Your task to perform on an android device: toggle show notifications on the lock screen Image 0: 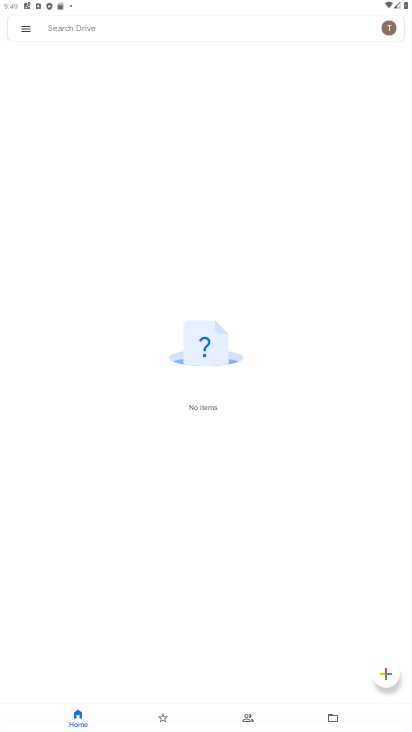
Step 0: press home button
Your task to perform on an android device: toggle show notifications on the lock screen Image 1: 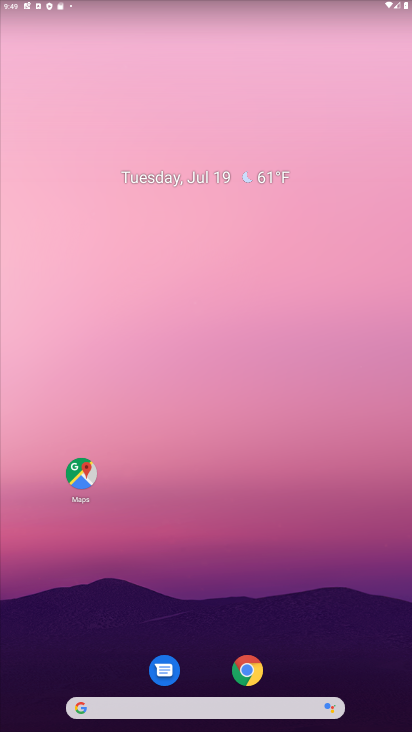
Step 1: drag from (199, 655) to (232, 71)
Your task to perform on an android device: toggle show notifications on the lock screen Image 2: 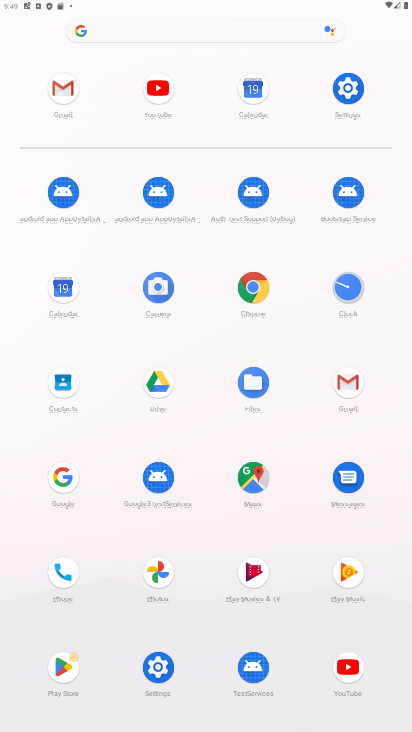
Step 2: click (341, 91)
Your task to perform on an android device: toggle show notifications on the lock screen Image 3: 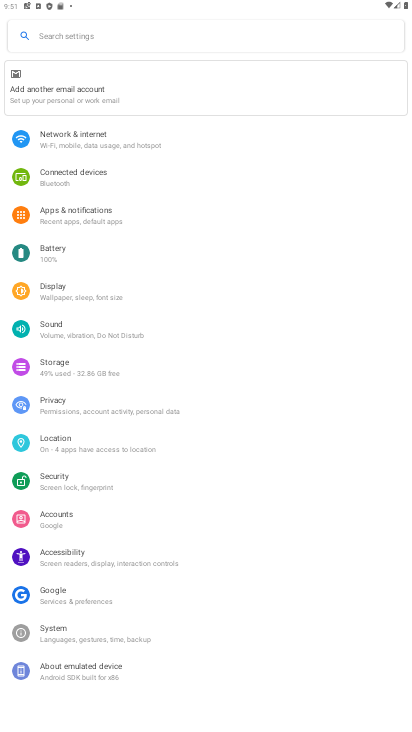
Step 3: click (205, 227)
Your task to perform on an android device: toggle show notifications on the lock screen Image 4: 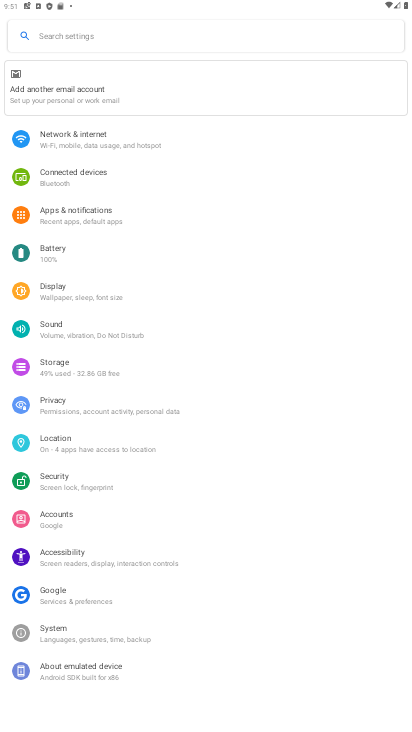
Step 4: click (205, 227)
Your task to perform on an android device: toggle show notifications on the lock screen Image 5: 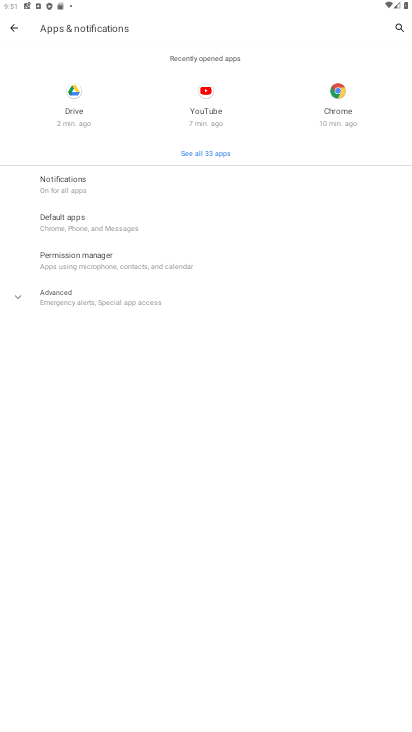
Step 5: click (200, 187)
Your task to perform on an android device: toggle show notifications on the lock screen Image 6: 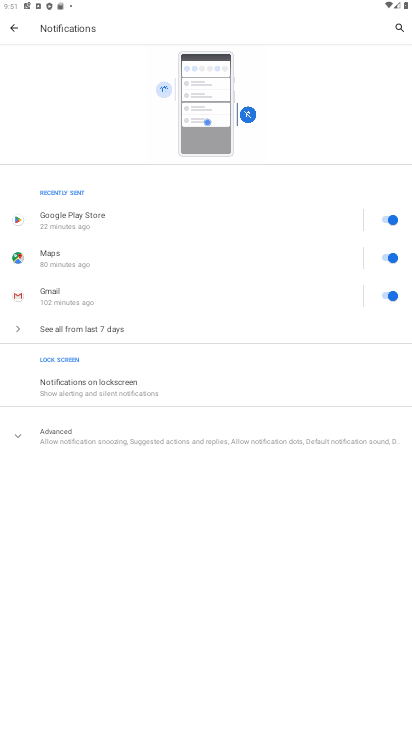
Step 6: click (137, 384)
Your task to perform on an android device: toggle show notifications on the lock screen Image 7: 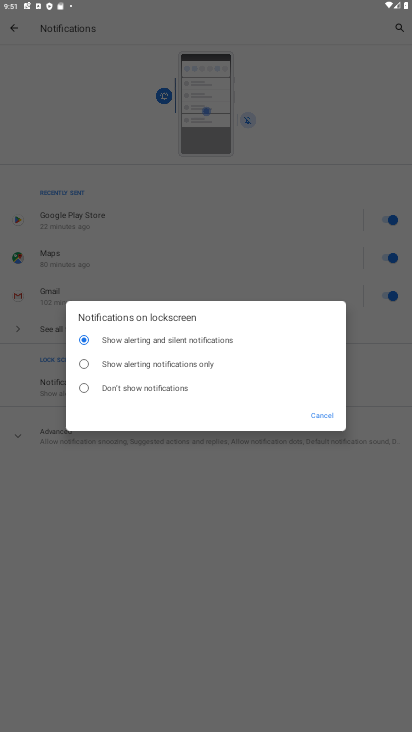
Step 7: task complete